Your task to perform on an android device: Open privacy settings Image 0: 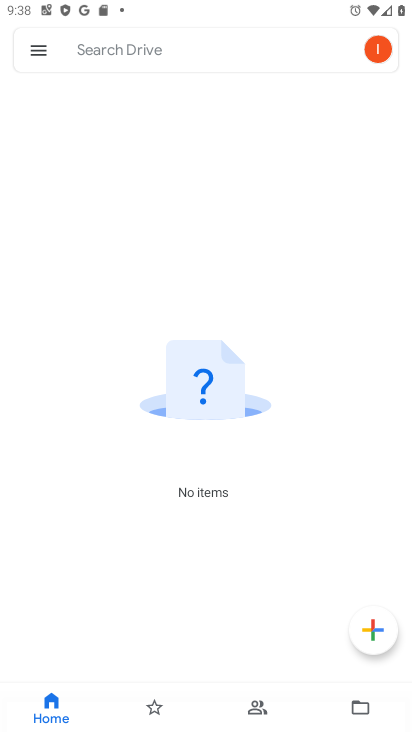
Step 0: press home button
Your task to perform on an android device: Open privacy settings Image 1: 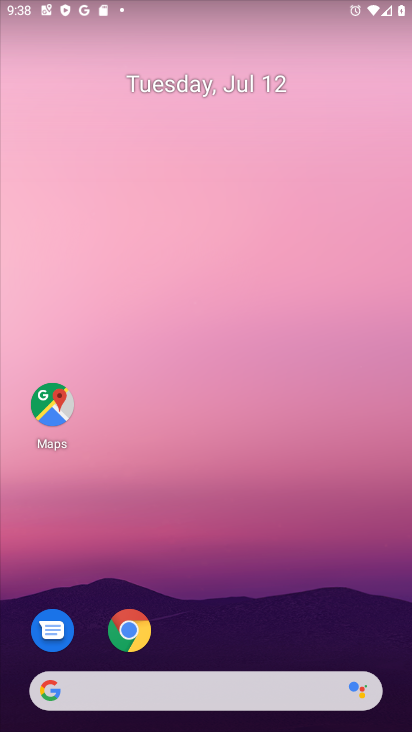
Step 1: click (131, 631)
Your task to perform on an android device: Open privacy settings Image 2: 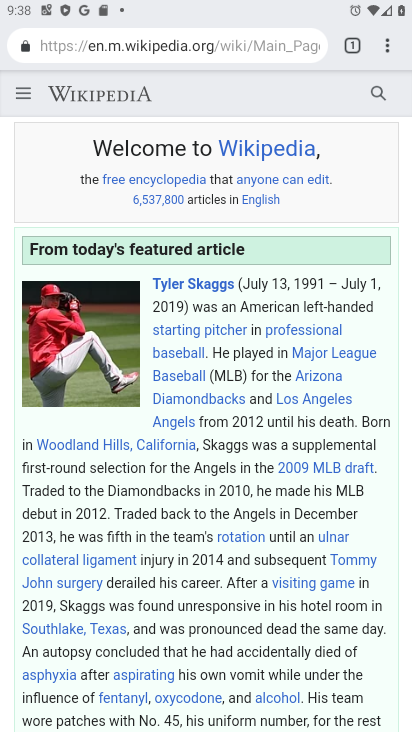
Step 2: click (386, 45)
Your task to perform on an android device: Open privacy settings Image 3: 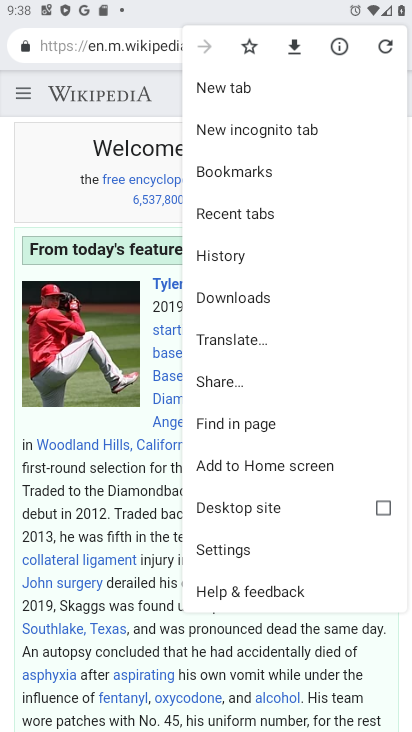
Step 3: click (253, 553)
Your task to perform on an android device: Open privacy settings Image 4: 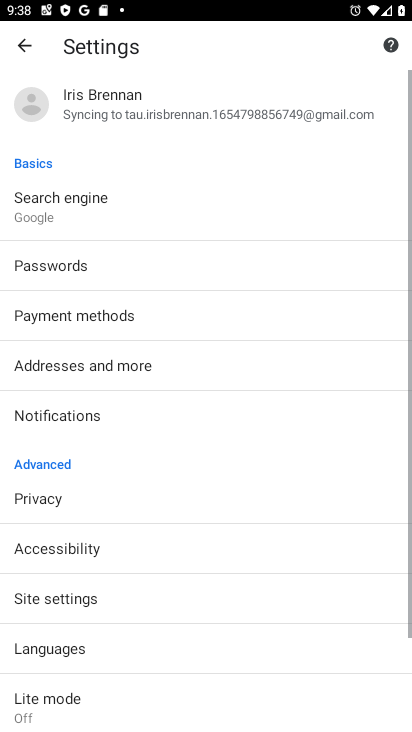
Step 4: click (73, 500)
Your task to perform on an android device: Open privacy settings Image 5: 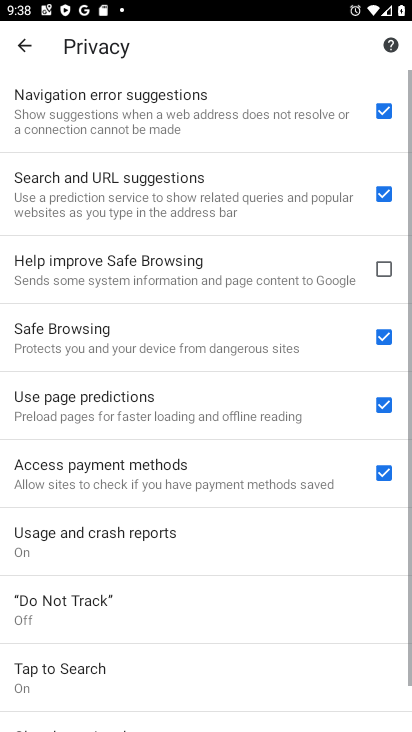
Step 5: task complete